Your task to perform on an android device: What is the news today? Image 0: 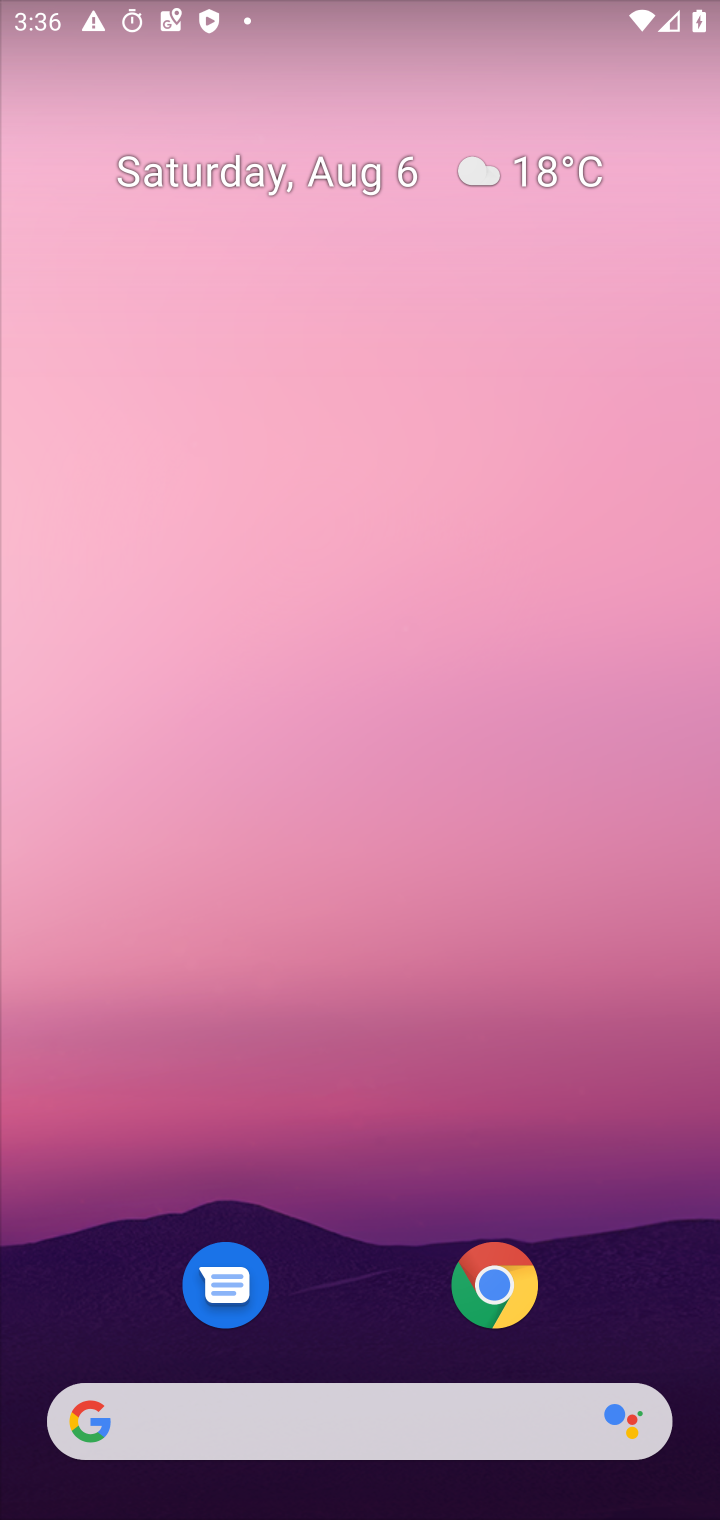
Step 0: press home button
Your task to perform on an android device: What is the news today? Image 1: 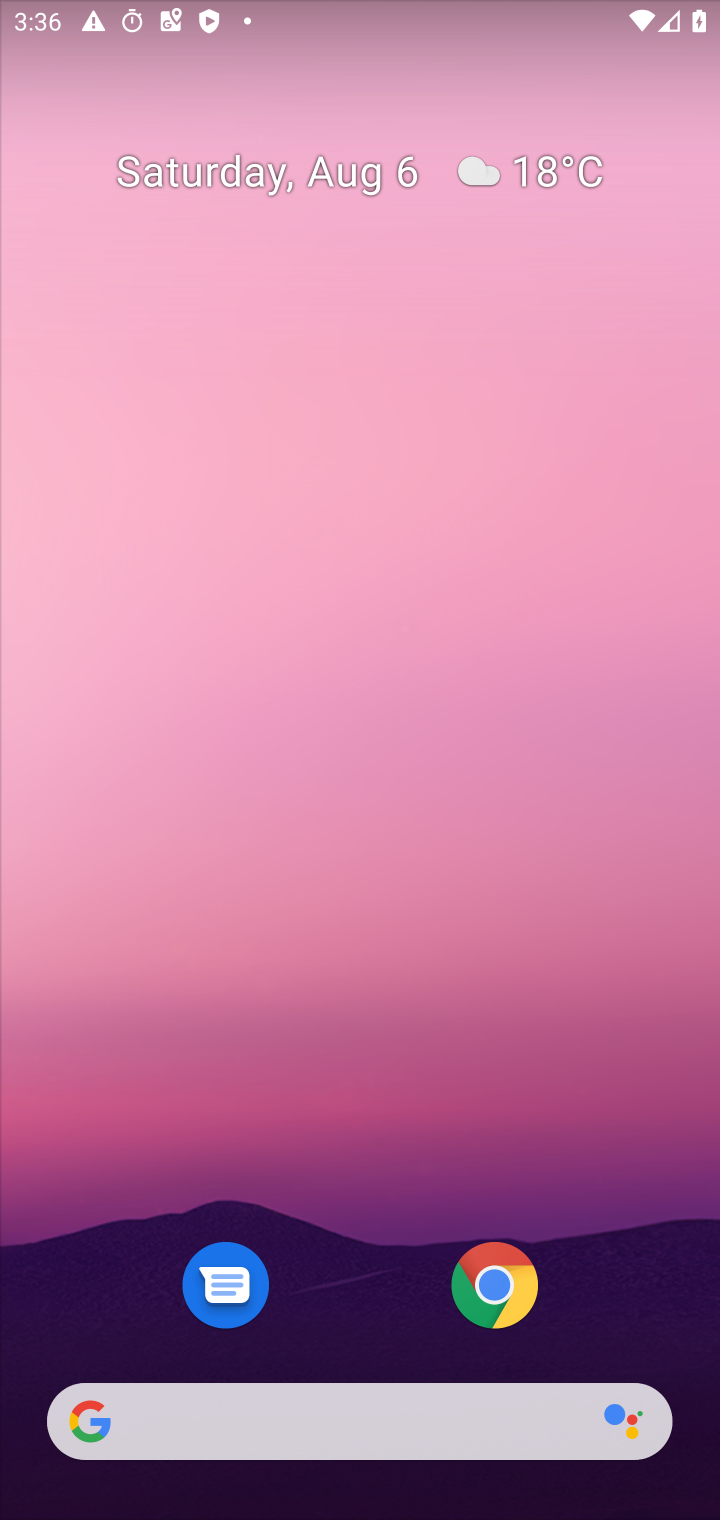
Step 1: task complete